Your task to perform on an android device: Open Maps and search for coffee Image 0: 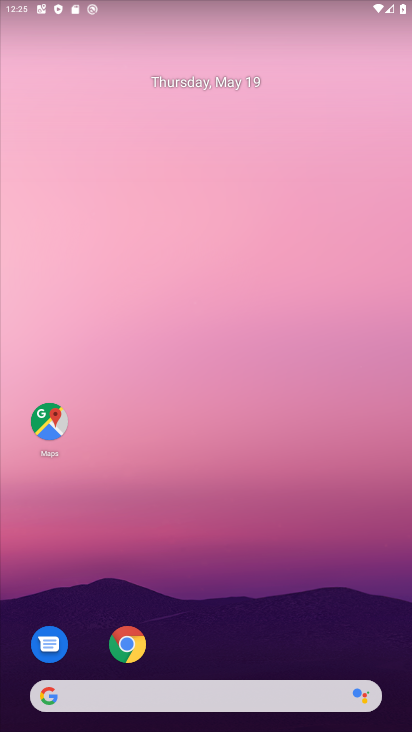
Step 0: drag from (238, 635) to (243, 141)
Your task to perform on an android device: Open Maps and search for coffee Image 1: 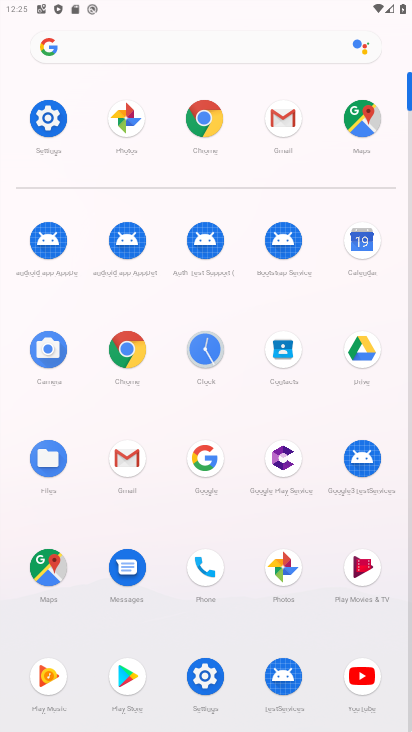
Step 1: click (45, 572)
Your task to perform on an android device: Open Maps and search for coffee Image 2: 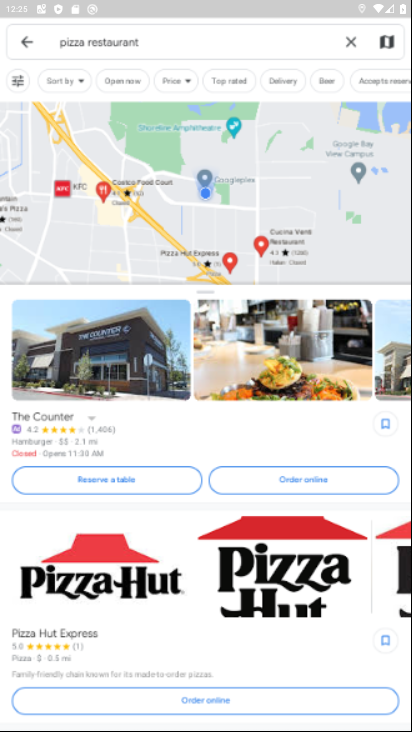
Step 2: click (353, 28)
Your task to perform on an android device: Open Maps and search for coffee Image 3: 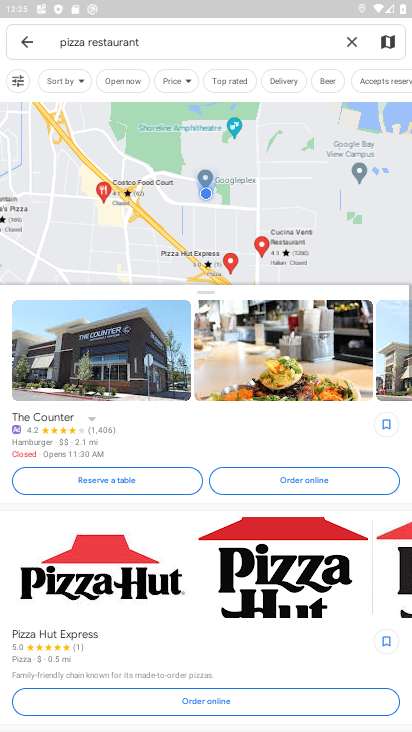
Step 3: click (353, 40)
Your task to perform on an android device: Open Maps and search for coffee Image 4: 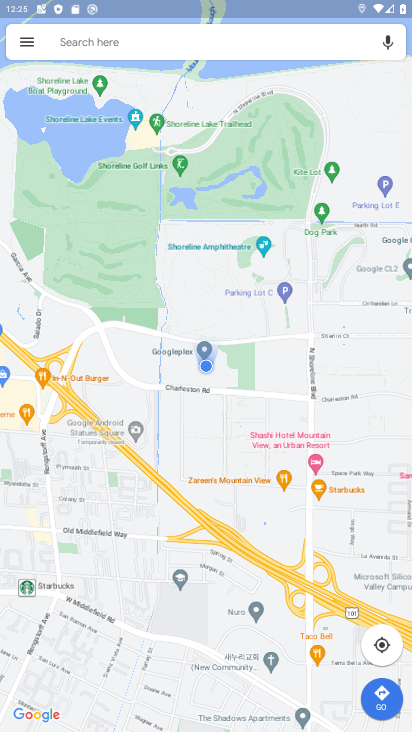
Step 4: click (157, 36)
Your task to perform on an android device: Open Maps and search for coffee Image 5: 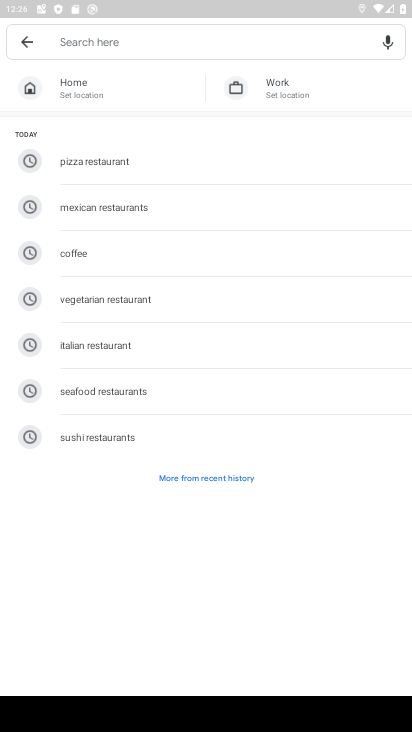
Step 5: click (65, 237)
Your task to perform on an android device: Open Maps and search for coffee Image 6: 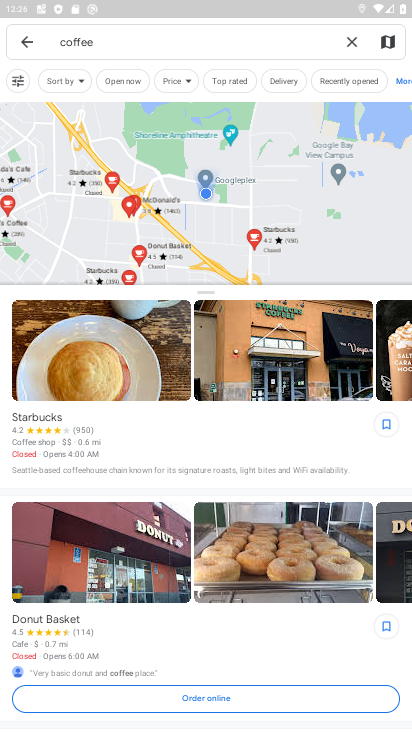
Step 6: task complete